Your task to perform on an android device: turn off notifications in google photos Image 0: 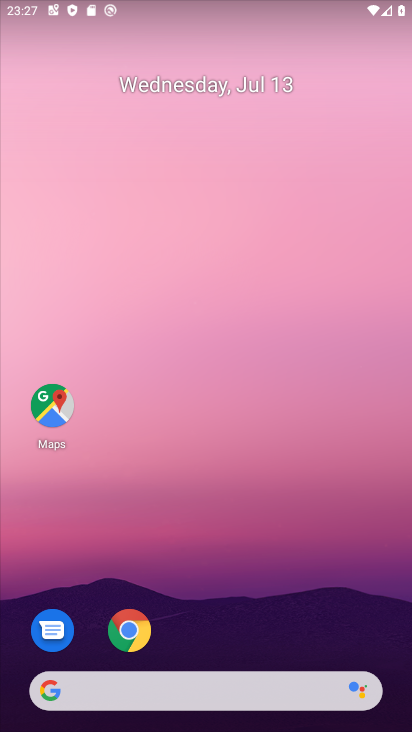
Step 0: drag from (345, 638) to (349, 161)
Your task to perform on an android device: turn off notifications in google photos Image 1: 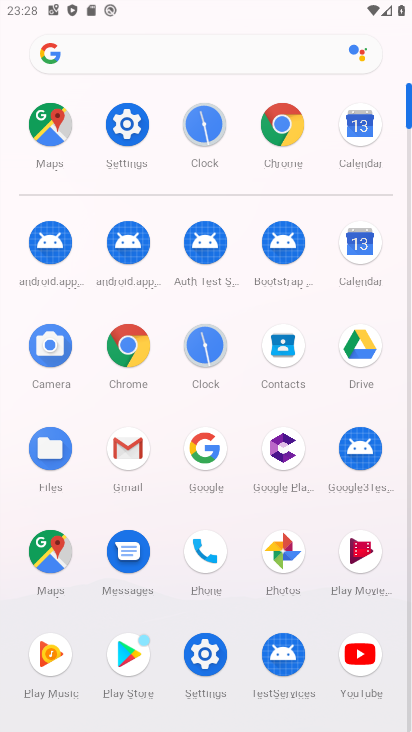
Step 1: click (280, 558)
Your task to perform on an android device: turn off notifications in google photos Image 2: 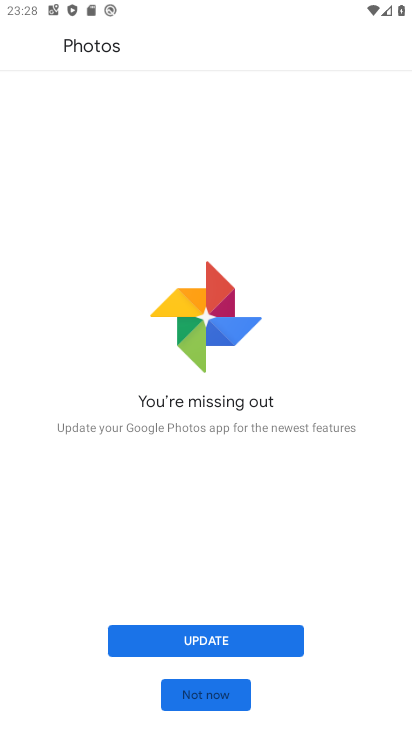
Step 2: click (266, 641)
Your task to perform on an android device: turn off notifications in google photos Image 3: 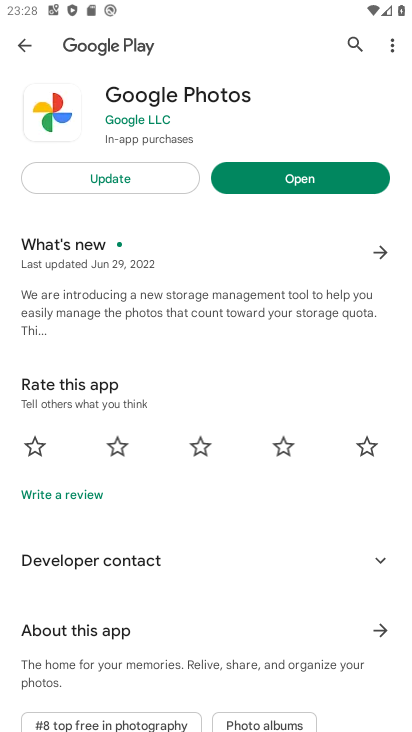
Step 3: click (117, 174)
Your task to perform on an android device: turn off notifications in google photos Image 4: 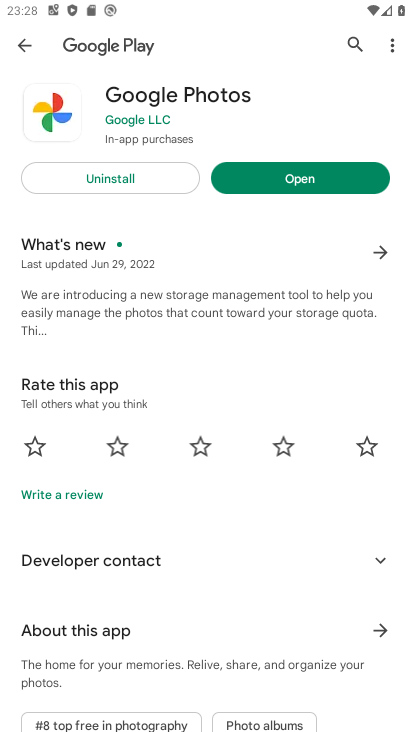
Step 4: click (321, 183)
Your task to perform on an android device: turn off notifications in google photos Image 5: 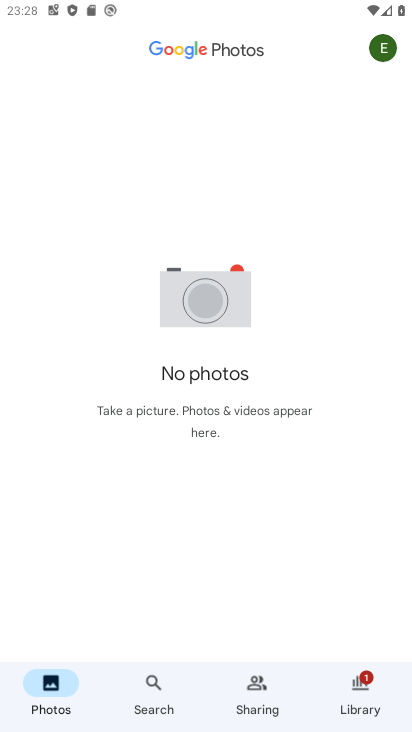
Step 5: click (386, 51)
Your task to perform on an android device: turn off notifications in google photos Image 6: 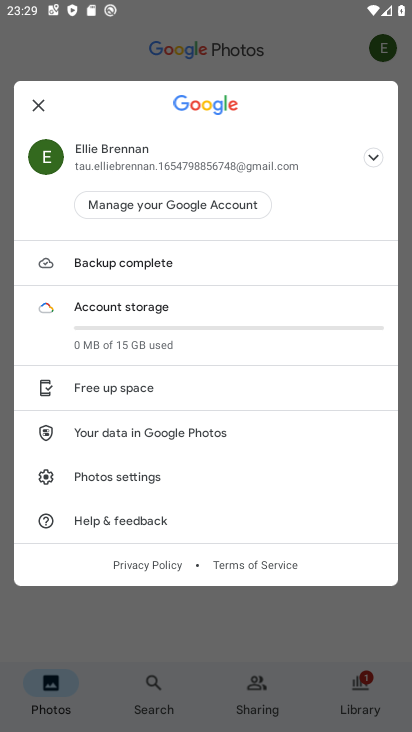
Step 6: click (152, 485)
Your task to perform on an android device: turn off notifications in google photos Image 7: 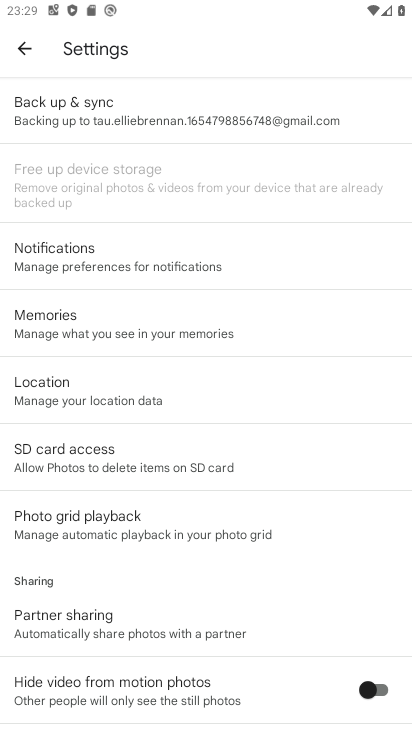
Step 7: click (229, 256)
Your task to perform on an android device: turn off notifications in google photos Image 8: 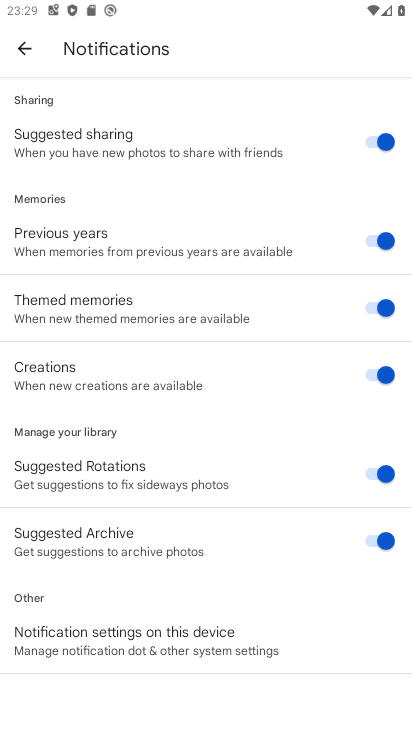
Step 8: click (242, 647)
Your task to perform on an android device: turn off notifications in google photos Image 9: 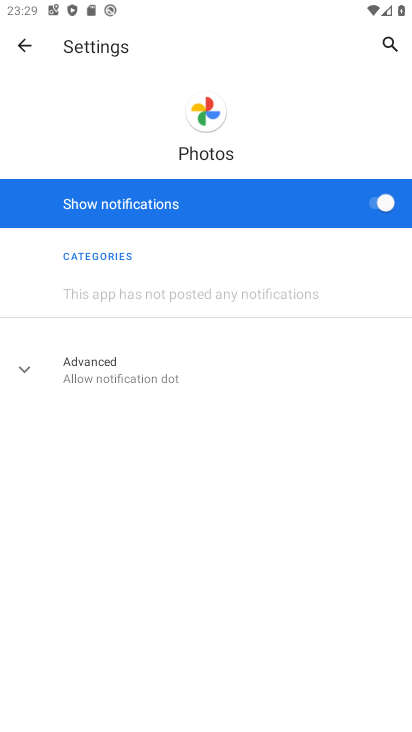
Step 9: click (387, 205)
Your task to perform on an android device: turn off notifications in google photos Image 10: 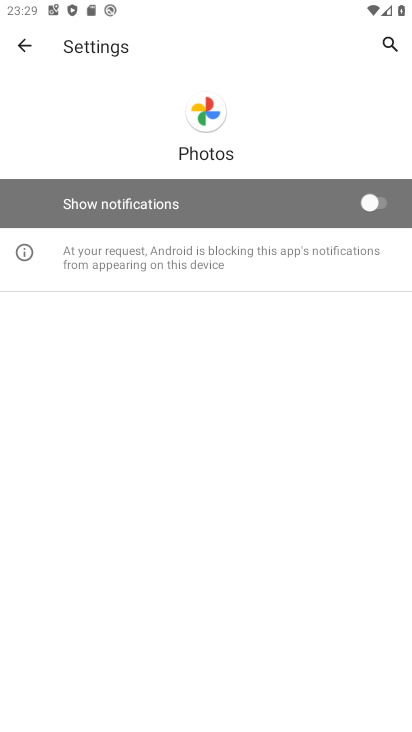
Step 10: task complete